Your task to perform on an android device: turn off airplane mode Image 0: 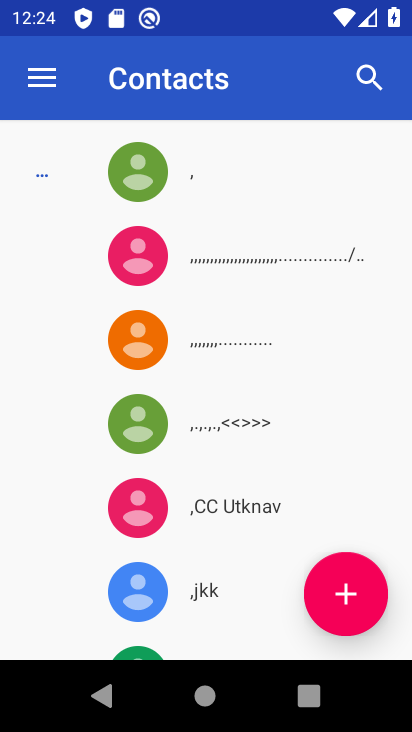
Step 0: drag from (225, 17) to (225, 615)
Your task to perform on an android device: turn off airplane mode Image 1: 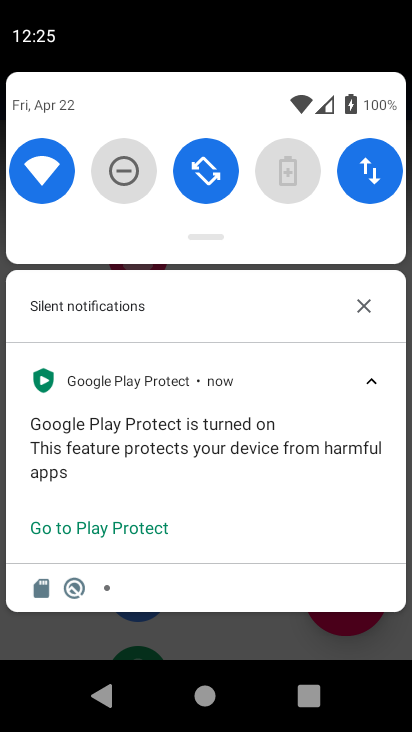
Step 1: task complete